Your task to perform on an android device: search for starred emails in the gmail app Image 0: 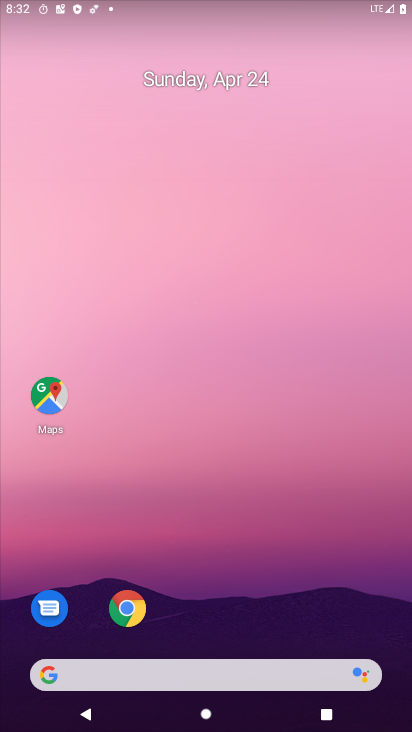
Step 0: drag from (272, 517) to (277, 80)
Your task to perform on an android device: search for starred emails in the gmail app Image 1: 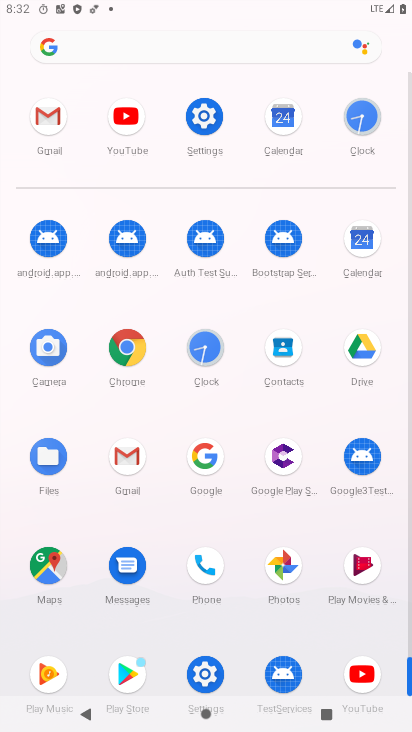
Step 1: click (55, 108)
Your task to perform on an android device: search for starred emails in the gmail app Image 2: 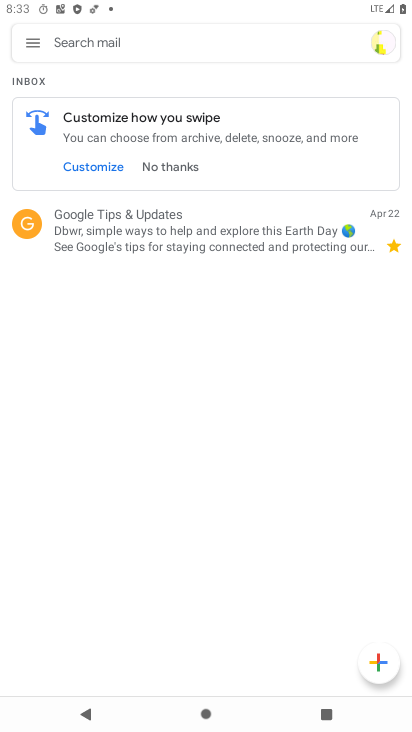
Step 2: click (36, 38)
Your task to perform on an android device: search for starred emails in the gmail app Image 3: 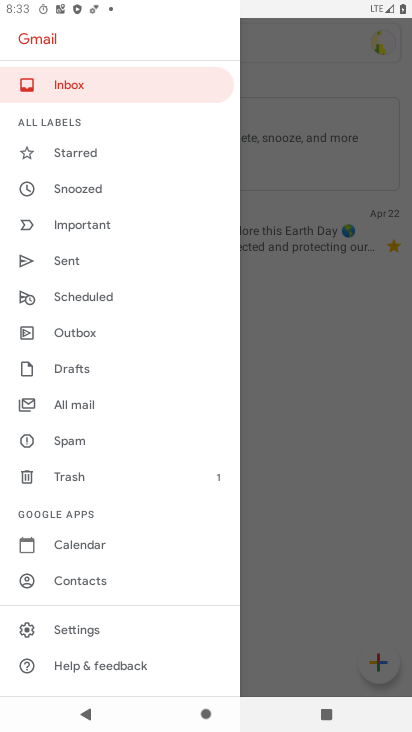
Step 3: click (100, 145)
Your task to perform on an android device: search for starred emails in the gmail app Image 4: 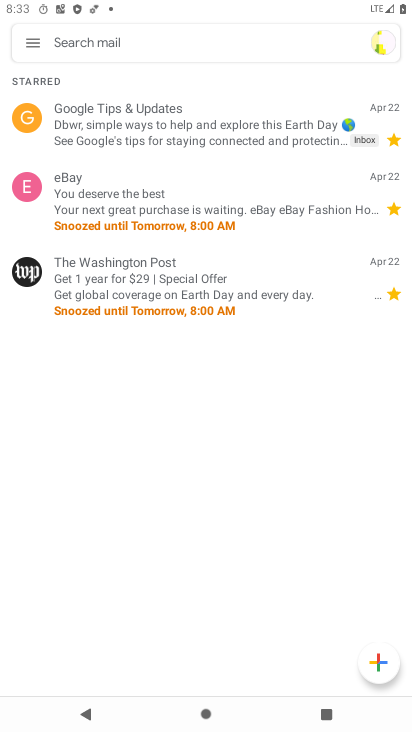
Step 4: task complete